Your task to perform on an android device: Show me productivity apps on the Play Store Image 0: 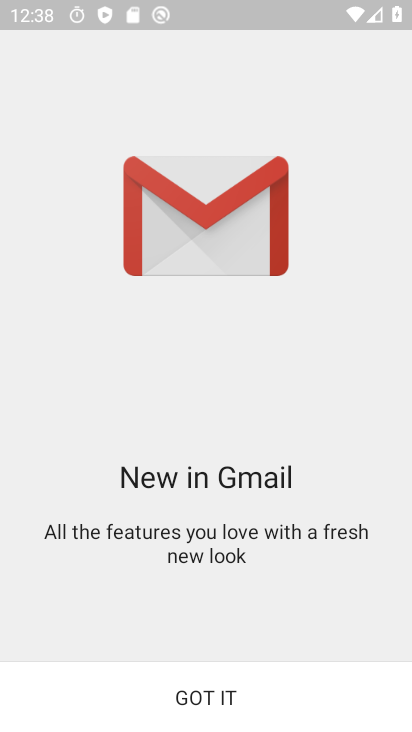
Step 0: press home button
Your task to perform on an android device: Show me productivity apps on the Play Store Image 1: 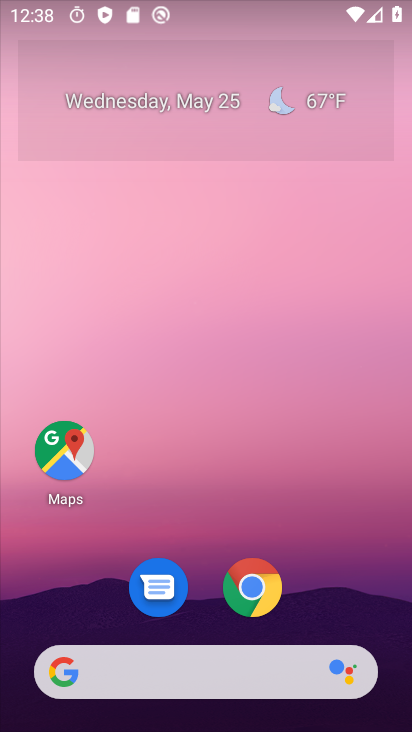
Step 1: drag from (217, 721) to (244, 18)
Your task to perform on an android device: Show me productivity apps on the Play Store Image 2: 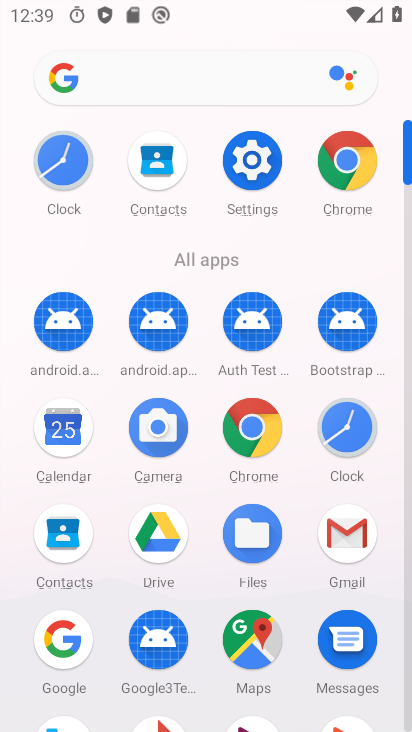
Step 2: drag from (123, 617) to (132, 213)
Your task to perform on an android device: Show me productivity apps on the Play Store Image 3: 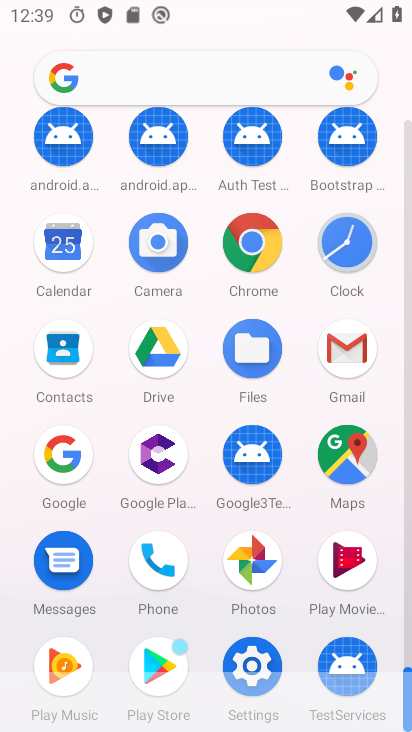
Step 3: drag from (201, 651) to (210, 288)
Your task to perform on an android device: Show me productivity apps on the Play Store Image 4: 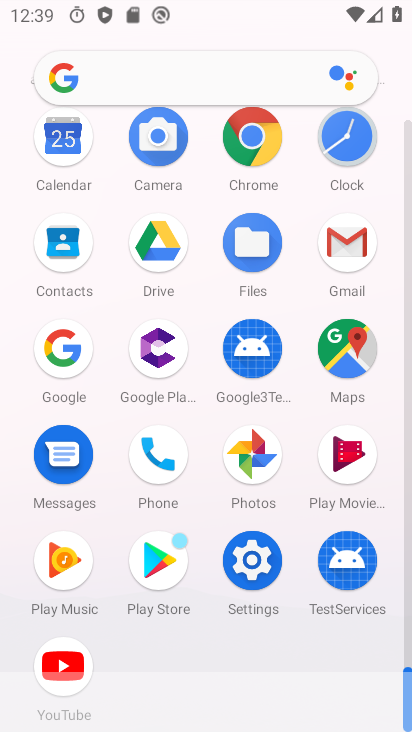
Step 4: click (164, 560)
Your task to perform on an android device: Show me productivity apps on the Play Store Image 5: 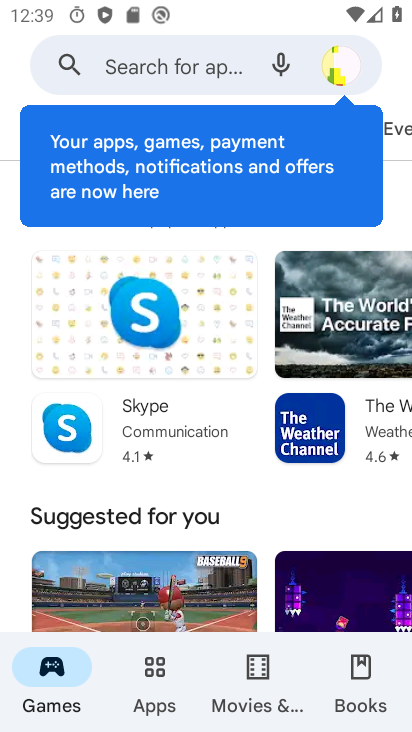
Step 5: click (157, 678)
Your task to perform on an android device: Show me productivity apps on the Play Store Image 6: 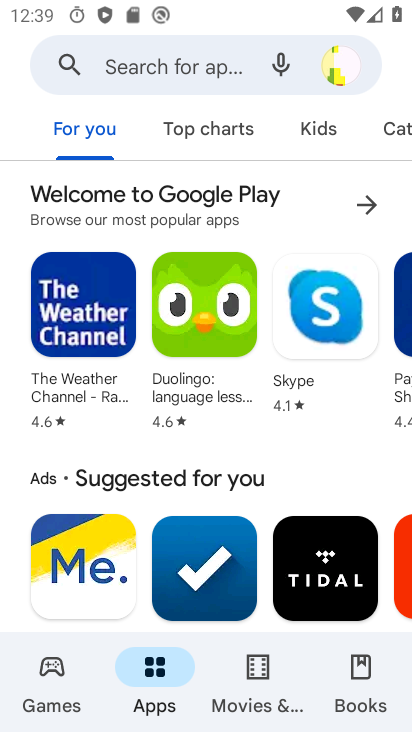
Step 6: drag from (300, 130) to (149, 123)
Your task to perform on an android device: Show me productivity apps on the Play Store Image 7: 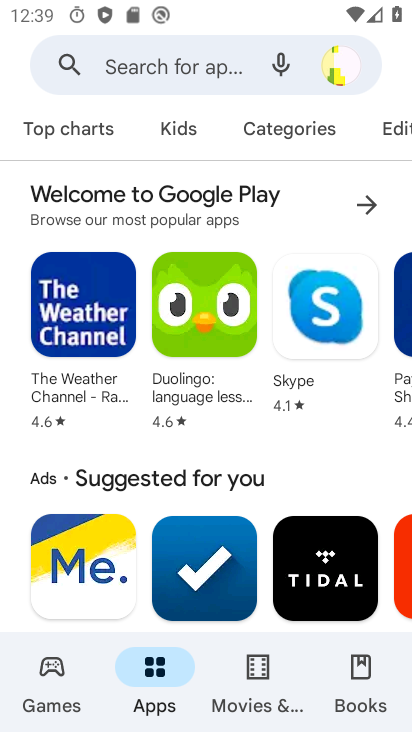
Step 7: click (286, 130)
Your task to perform on an android device: Show me productivity apps on the Play Store Image 8: 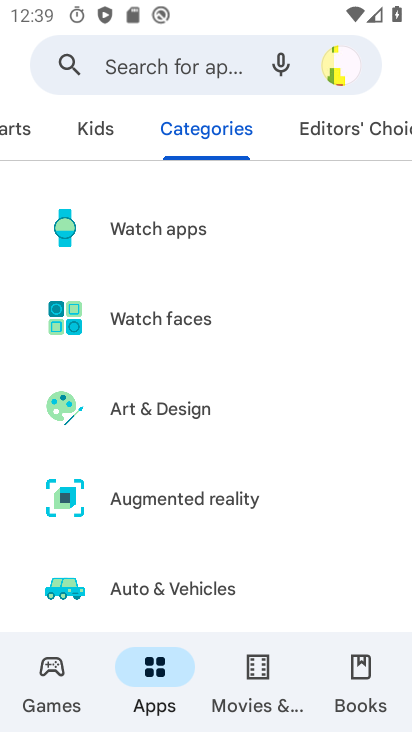
Step 8: drag from (193, 598) to (189, 224)
Your task to perform on an android device: Show me productivity apps on the Play Store Image 9: 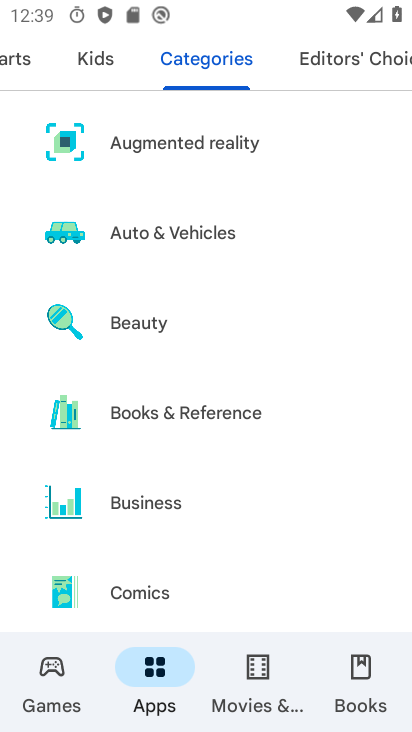
Step 9: drag from (172, 585) to (177, 195)
Your task to perform on an android device: Show me productivity apps on the Play Store Image 10: 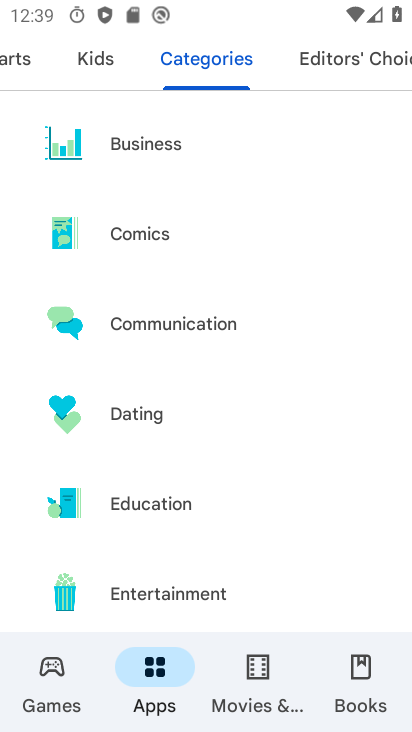
Step 10: drag from (171, 578) to (173, 214)
Your task to perform on an android device: Show me productivity apps on the Play Store Image 11: 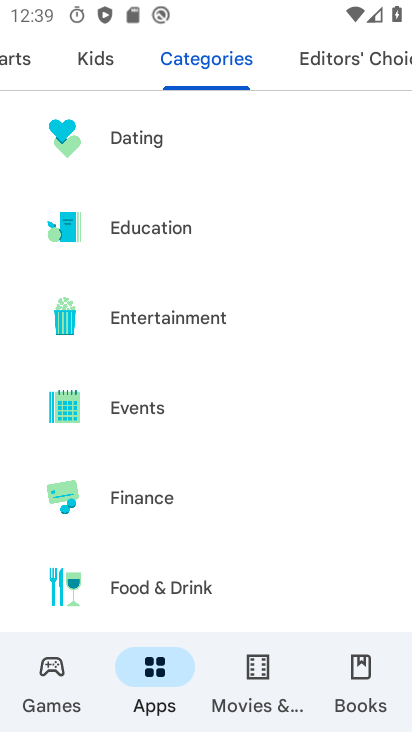
Step 11: drag from (185, 580) to (183, 225)
Your task to perform on an android device: Show me productivity apps on the Play Store Image 12: 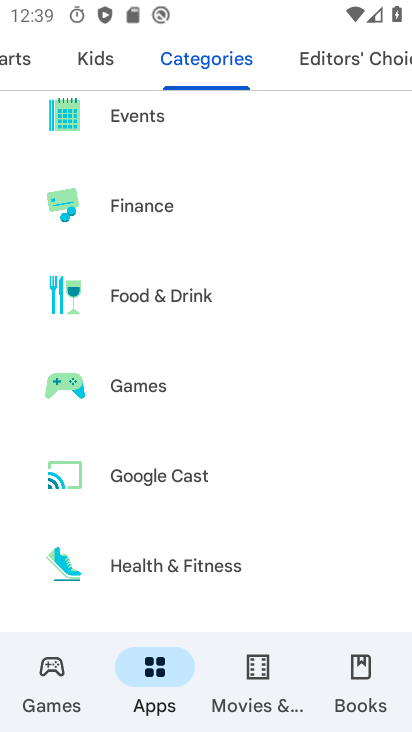
Step 12: drag from (187, 584) to (190, 245)
Your task to perform on an android device: Show me productivity apps on the Play Store Image 13: 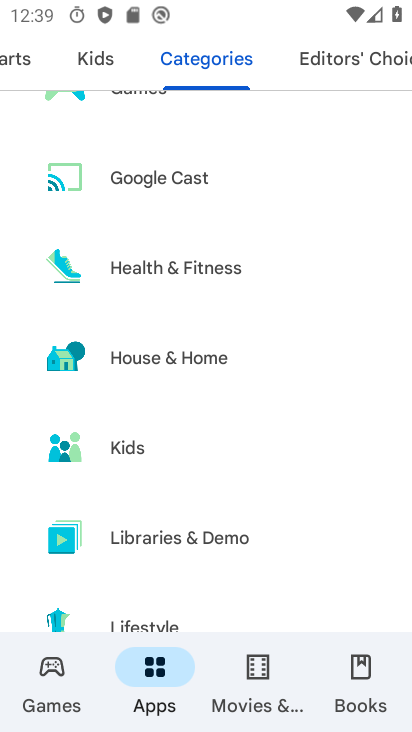
Step 13: drag from (163, 582) to (176, 197)
Your task to perform on an android device: Show me productivity apps on the Play Store Image 14: 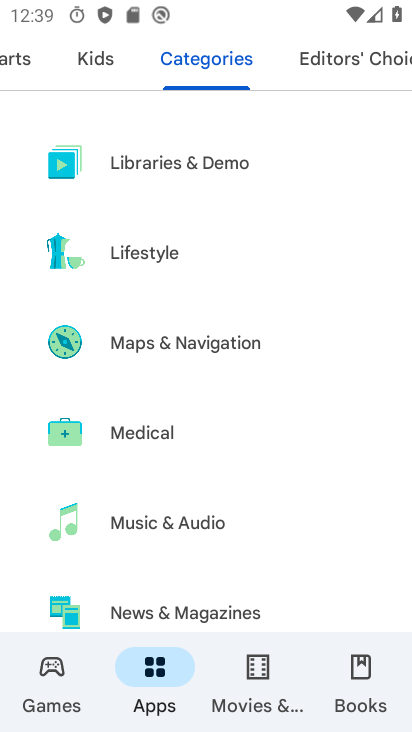
Step 14: drag from (150, 569) to (174, 189)
Your task to perform on an android device: Show me productivity apps on the Play Store Image 15: 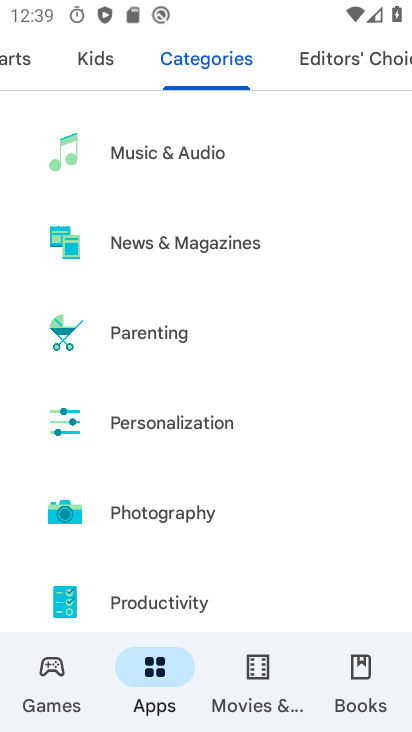
Step 15: click (170, 598)
Your task to perform on an android device: Show me productivity apps on the Play Store Image 16: 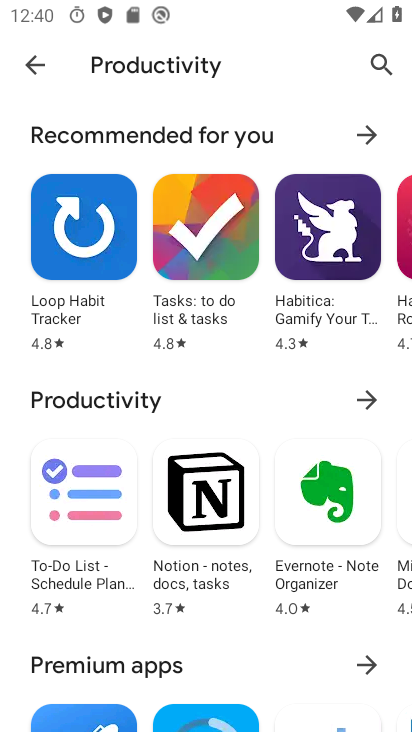
Step 16: task complete